Your task to perform on an android device: Empty the shopping cart on amazon.com. Search for "usb-a" on amazon.com, select the first entry, add it to the cart, then select checkout. Image 0: 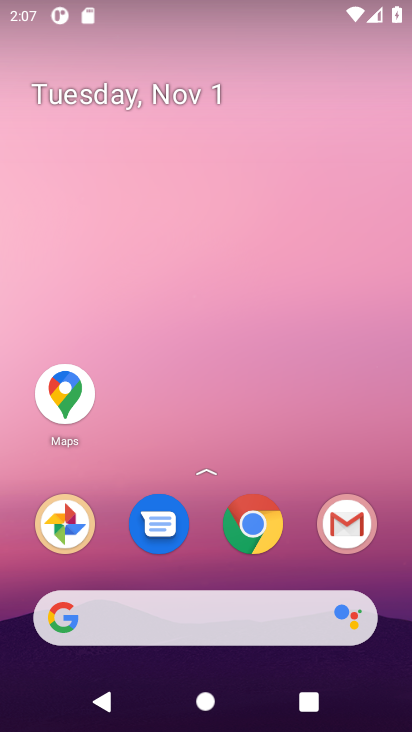
Step 0: click (256, 520)
Your task to perform on an android device: Empty the shopping cart on amazon.com. Search for "usb-a" on amazon.com, select the first entry, add it to the cart, then select checkout. Image 1: 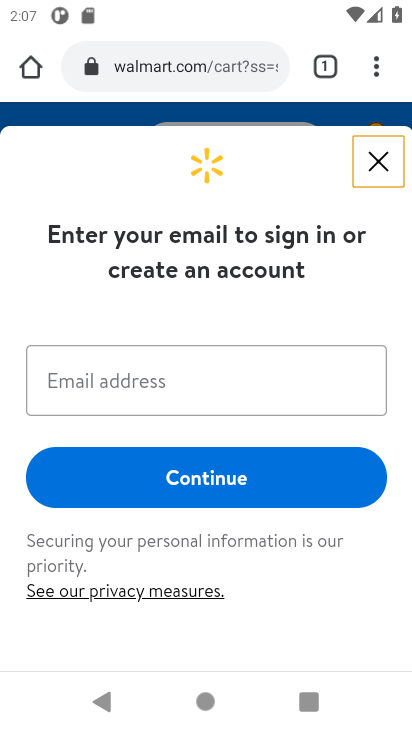
Step 1: click (204, 45)
Your task to perform on an android device: Empty the shopping cart on amazon.com. Search for "usb-a" on amazon.com, select the first entry, add it to the cart, then select checkout. Image 2: 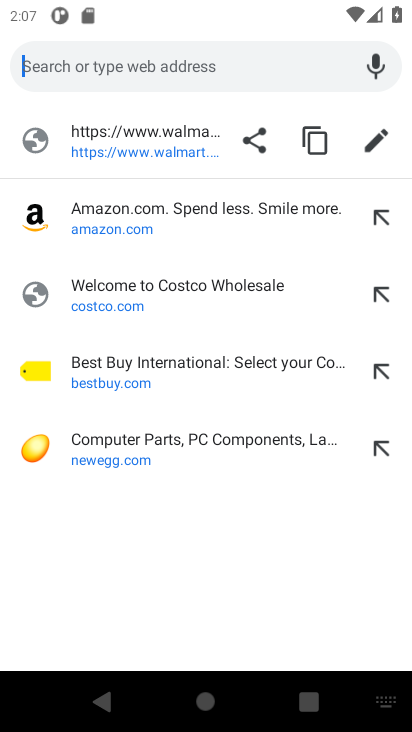
Step 2: click (99, 211)
Your task to perform on an android device: Empty the shopping cart on amazon.com. Search for "usb-a" on amazon.com, select the first entry, add it to the cart, then select checkout. Image 3: 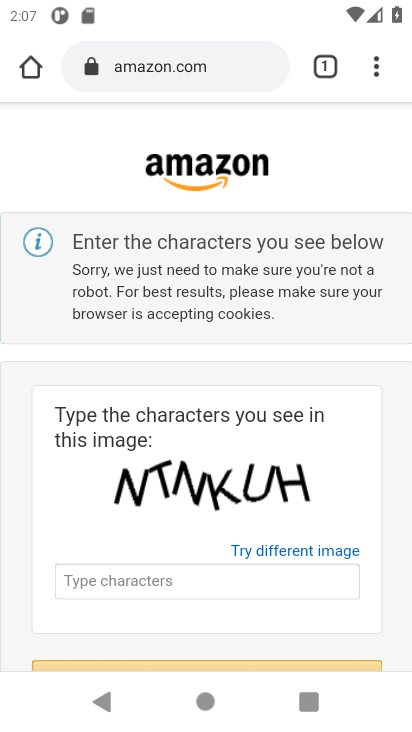
Step 3: click (110, 575)
Your task to perform on an android device: Empty the shopping cart on amazon.com. Search for "usb-a" on amazon.com, select the first entry, add it to the cart, then select checkout. Image 4: 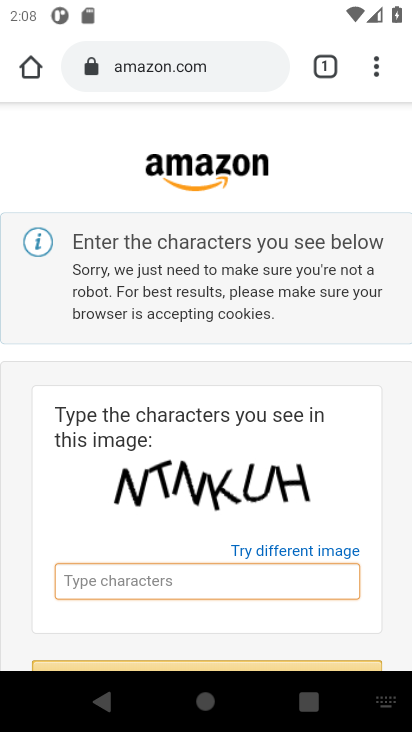
Step 4: type "NTNKUH"
Your task to perform on an android device: Empty the shopping cart on amazon.com. Search for "usb-a" on amazon.com, select the first entry, add it to the cart, then select checkout. Image 5: 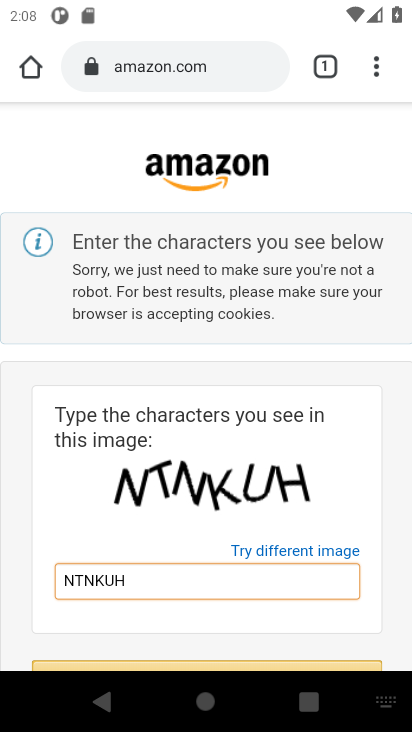
Step 5: drag from (262, 633) to (246, 320)
Your task to perform on an android device: Empty the shopping cart on amazon.com. Search for "usb-a" on amazon.com, select the first entry, add it to the cart, then select checkout. Image 6: 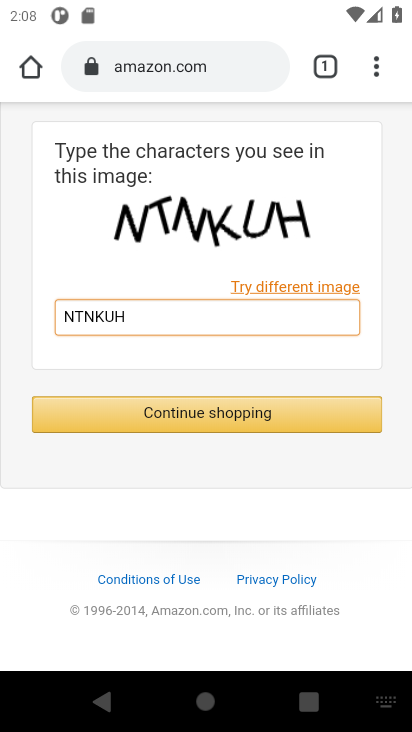
Step 6: click (196, 410)
Your task to perform on an android device: Empty the shopping cart on amazon.com. Search for "usb-a" on amazon.com, select the first entry, add it to the cart, then select checkout. Image 7: 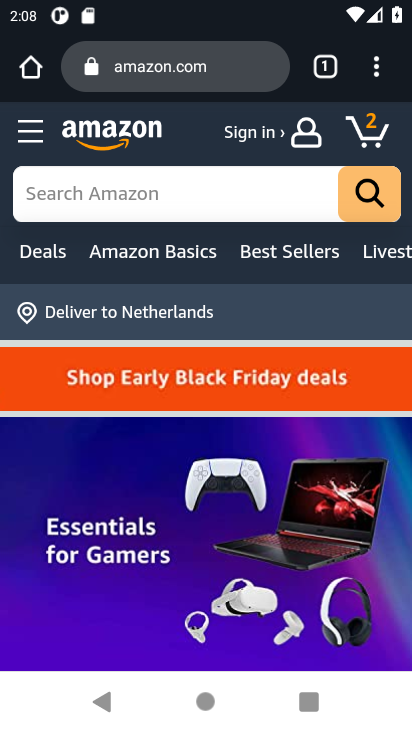
Step 7: click (103, 186)
Your task to perform on an android device: Empty the shopping cart on amazon.com. Search for "usb-a" on amazon.com, select the first entry, add it to the cart, then select checkout. Image 8: 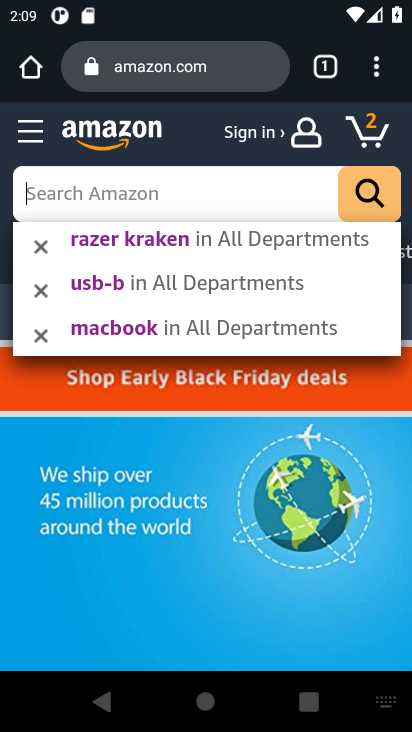
Step 8: type "usb-a"
Your task to perform on an android device: Empty the shopping cart on amazon.com. Search for "usb-a" on amazon.com, select the first entry, add it to the cart, then select checkout. Image 9: 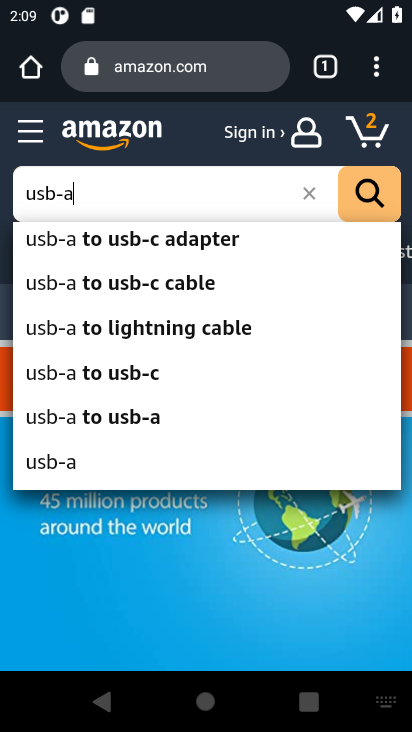
Step 9: click (89, 244)
Your task to perform on an android device: Empty the shopping cart on amazon.com. Search for "usb-a" on amazon.com, select the first entry, add it to the cart, then select checkout. Image 10: 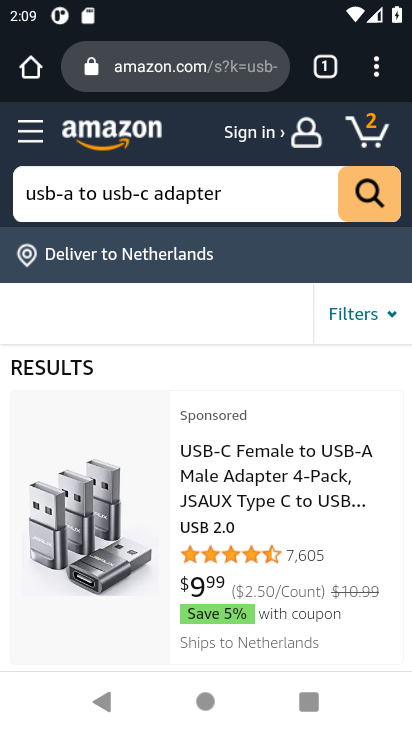
Step 10: click (243, 467)
Your task to perform on an android device: Empty the shopping cart on amazon.com. Search for "usb-a" on amazon.com, select the first entry, add it to the cart, then select checkout. Image 11: 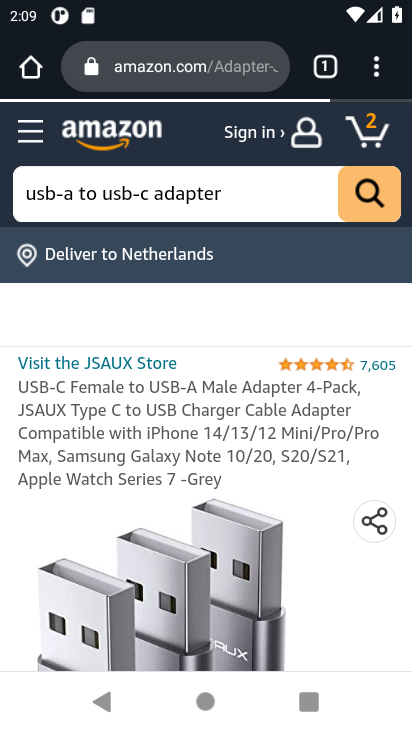
Step 11: drag from (285, 634) to (247, 197)
Your task to perform on an android device: Empty the shopping cart on amazon.com. Search for "usb-a" on amazon.com, select the first entry, add it to the cart, then select checkout. Image 12: 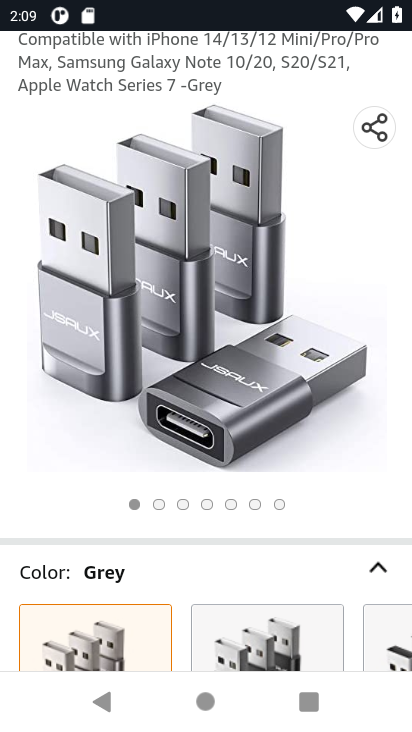
Step 12: drag from (239, 558) to (217, 153)
Your task to perform on an android device: Empty the shopping cart on amazon.com. Search for "usb-a" on amazon.com, select the first entry, add it to the cart, then select checkout. Image 13: 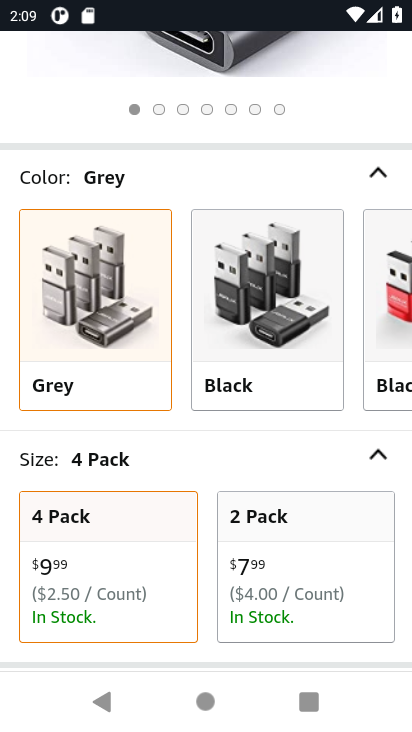
Step 13: drag from (206, 648) to (258, 217)
Your task to perform on an android device: Empty the shopping cart on amazon.com. Search for "usb-a" on amazon.com, select the first entry, add it to the cart, then select checkout. Image 14: 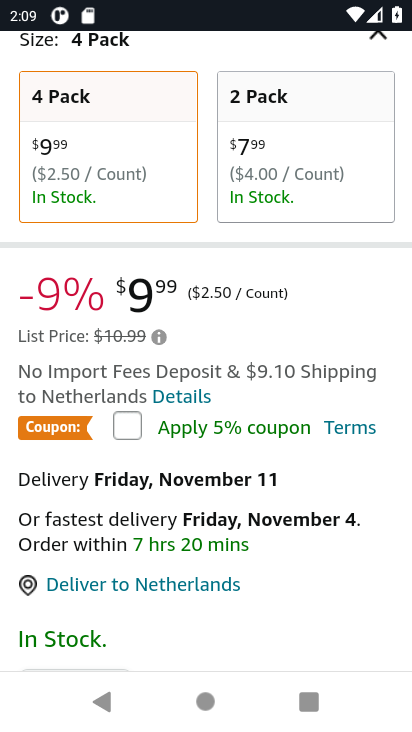
Step 14: drag from (276, 625) to (299, 167)
Your task to perform on an android device: Empty the shopping cart on amazon.com. Search for "usb-a" on amazon.com, select the first entry, add it to the cart, then select checkout. Image 15: 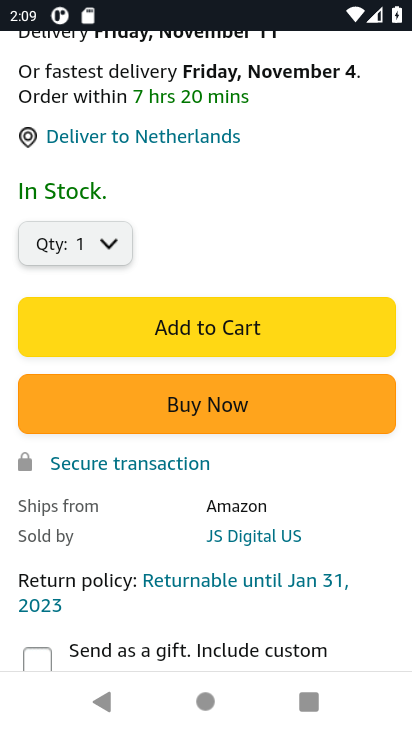
Step 15: click (205, 327)
Your task to perform on an android device: Empty the shopping cart on amazon.com. Search for "usb-a" on amazon.com, select the first entry, add it to the cart, then select checkout. Image 16: 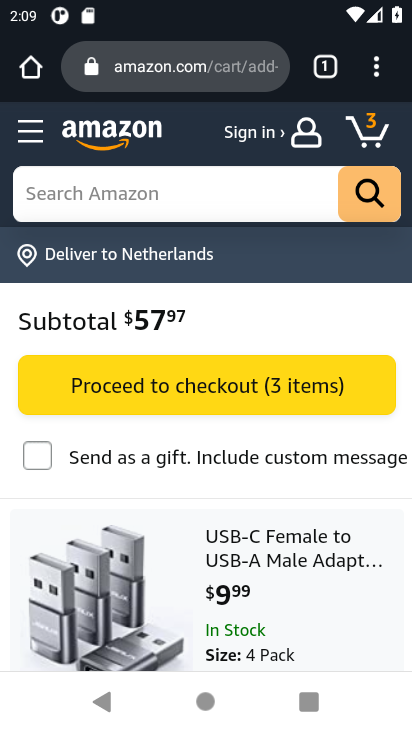
Step 16: click (195, 383)
Your task to perform on an android device: Empty the shopping cart on amazon.com. Search for "usb-a" on amazon.com, select the first entry, add it to the cart, then select checkout. Image 17: 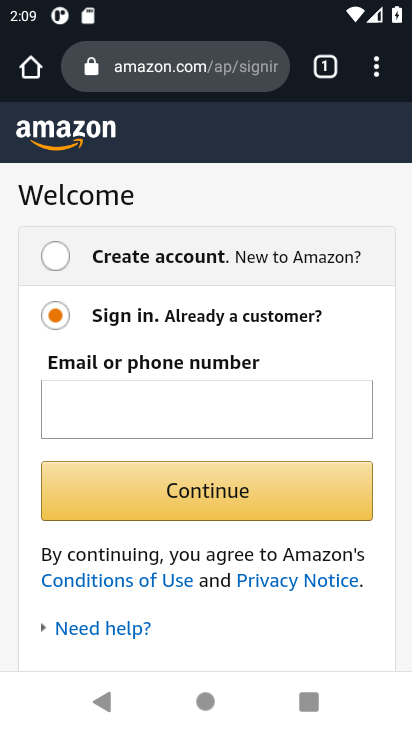
Step 17: task complete